Your task to perform on an android device: turn off location Image 0: 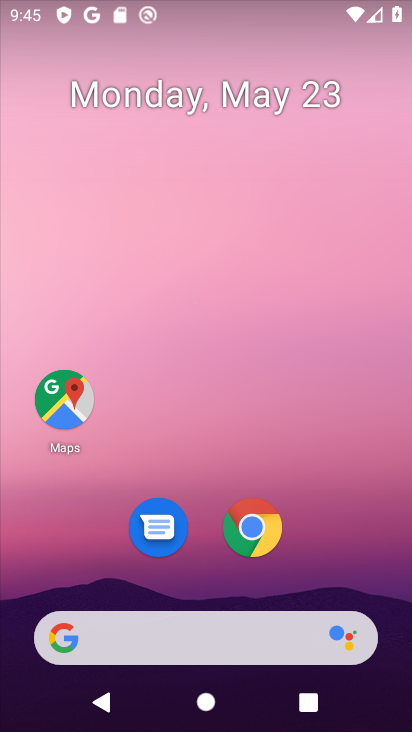
Step 0: drag from (372, 514) to (369, 88)
Your task to perform on an android device: turn off location Image 1: 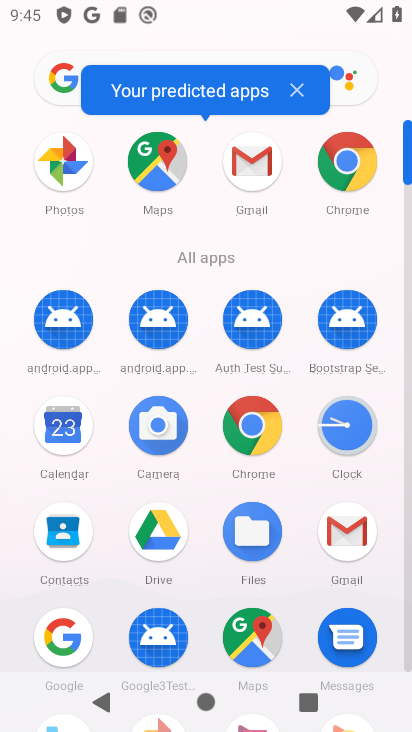
Step 1: drag from (259, 255) to (251, 5)
Your task to perform on an android device: turn off location Image 2: 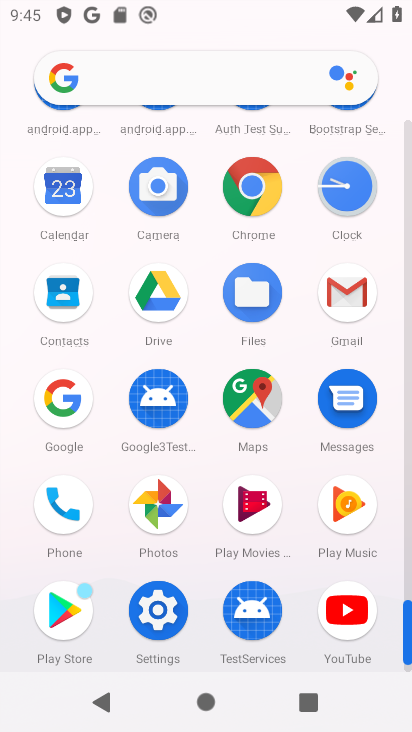
Step 2: click (177, 614)
Your task to perform on an android device: turn off location Image 3: 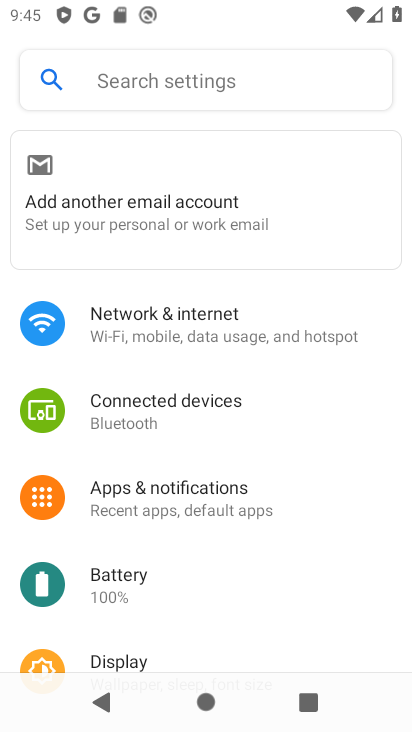
Step 3: drag from (207, 642) to (210, 323)
Your task to perform on an android device: turn off location Image 4: 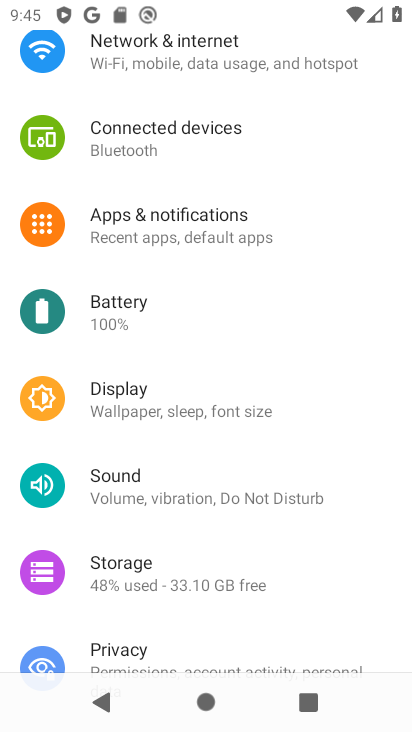
Step 4: drag from (149, 624) to (224, 363)
Your task to perform on an android device: turn off location Image 5: 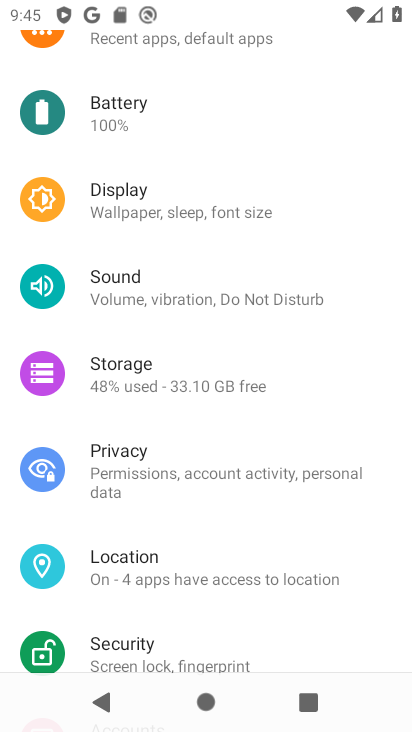
Step 5: click (154, 555)
Your task to perform on an android device: turn off location Image 6: 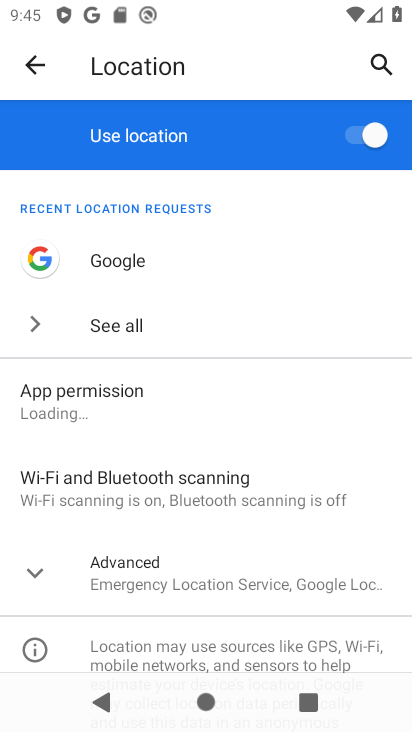
Step 6: click (371, 134)
Your task to perform on an android device: turn off location Image 7: 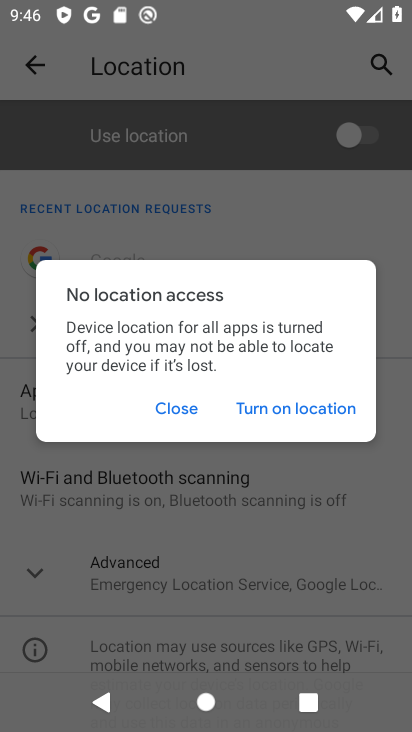
Step 7: click (181, 410)
Your task to perform on an android device: turn off location Image 8: 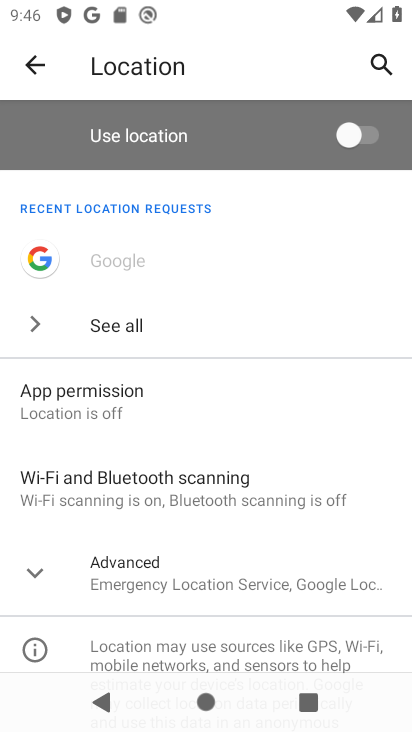
Step 8: task complete